Your task to perform on an android device: Go to calendar. Show me events next week Image 0: 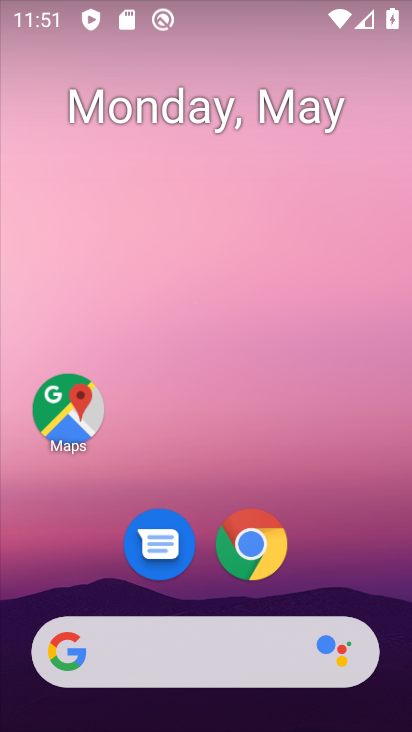
Step 0: drag from (217, 602) to (235, 220)
Your task to perform on an android device: Go to calendar. Show me events next week Image 1: 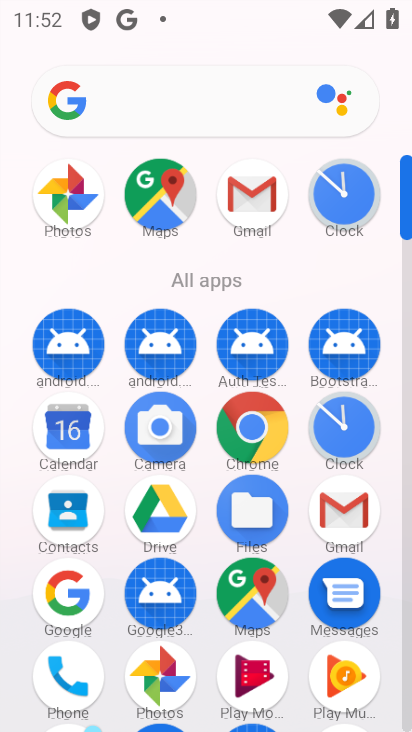
Step 1: click (78, 440)
Your task to perform on an android device: Go to calendar. Show me events next week Image 2: 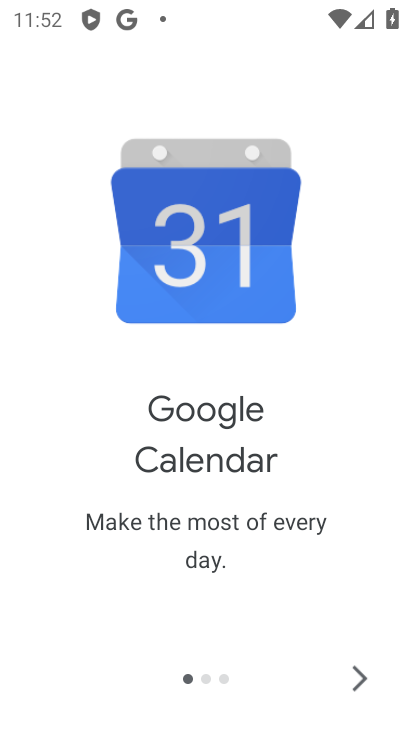
Step 2: click (350, 680)
Your task to perform on an android device: Go to calendar. Show me events next week Image 3: 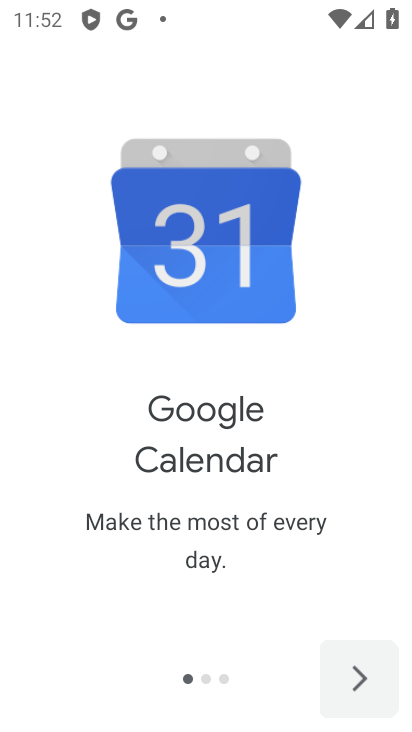
Step 3: click (350, 680)
Your task to perform on an android device: Go to calendar. Show me events next week Image 4: 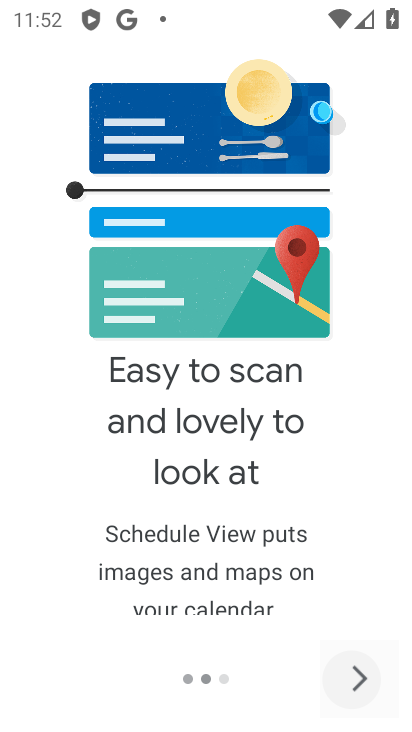
Step 4: click (350, 680)
Your task to perform on an android device: Go to calendar. Show me events next week Image 5: 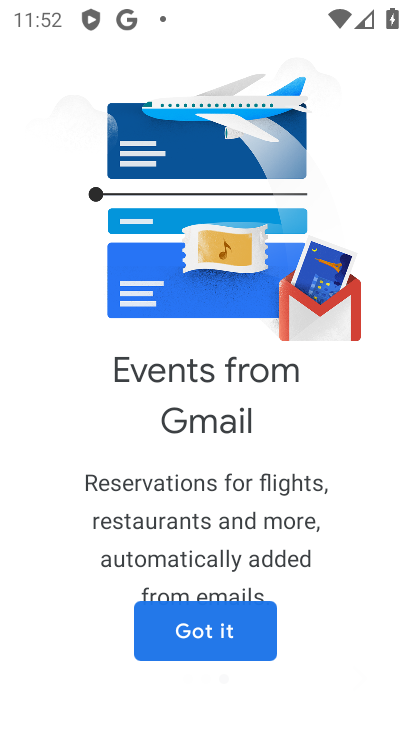
Step 5: click (347, 680)
Your task to perform on an android device: Go to calendar. Show me events next week Image 6: 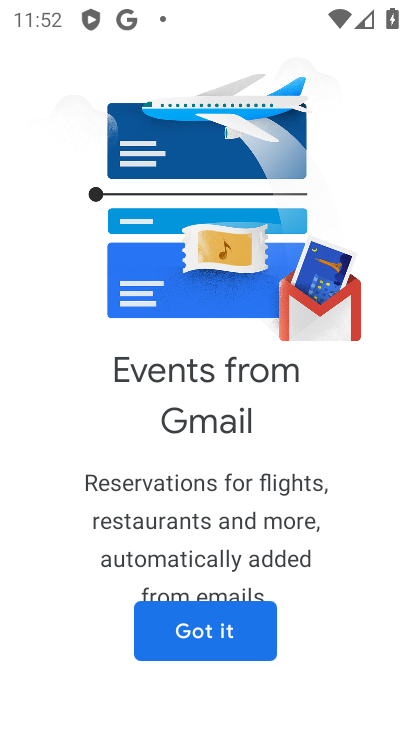
Step 6: click (243, 624)
Your task to perform on an android device: Go to calendar. Show me events next week Image 7: 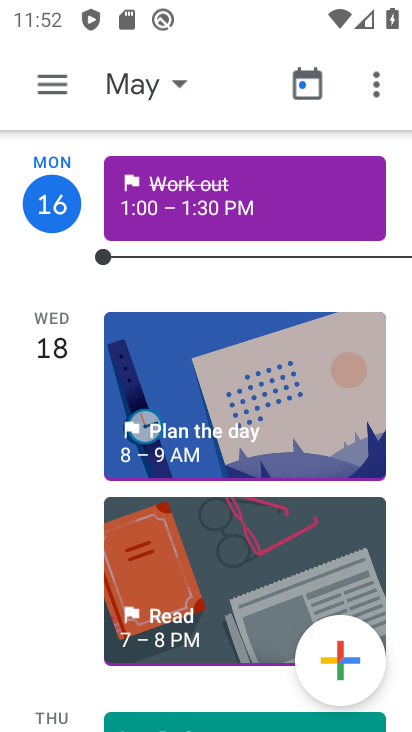
Step 7: click (178, 93)
Your task to perform on an android device: Go to calendar. Show me events next week Image 8: 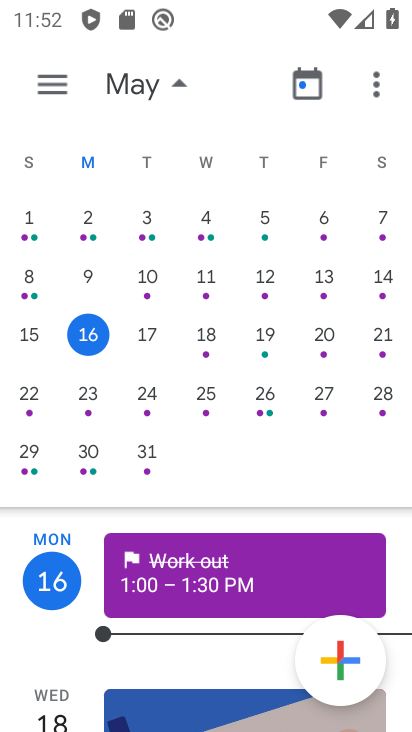
Step 8: click (87, 388)
Your task to perform on an android device: Go to calendar. Show me events next week Image 9: 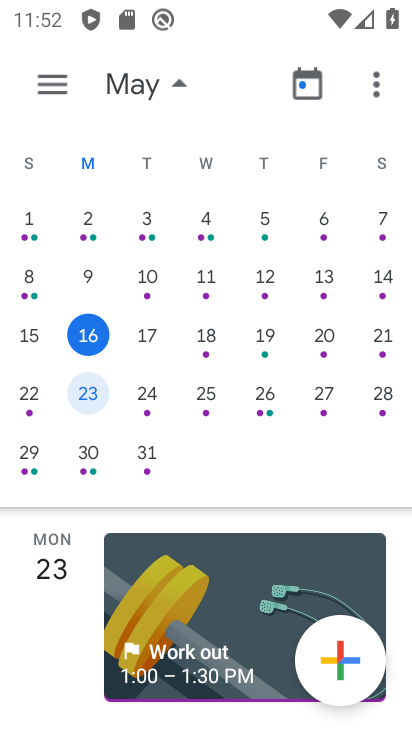
Step 9: click (37, 396)
Your task to perform on an android device: Go to calendar. Show me events next week Image 10: 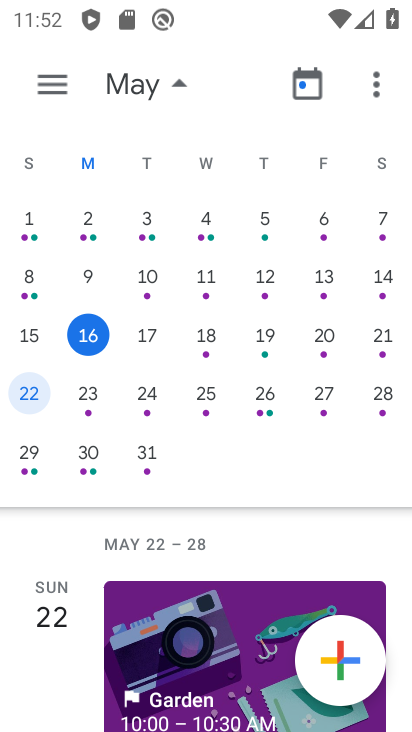
Step 10: click (273, 404)
Your task to perform on an android device: Go to calendar. Show me events next week Image 11: 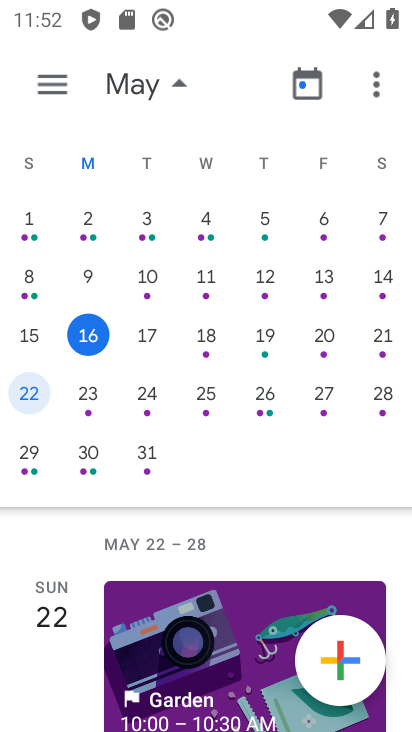
Step 11: task complete